Your task to perform on an android device: Open sound settings Image 0: 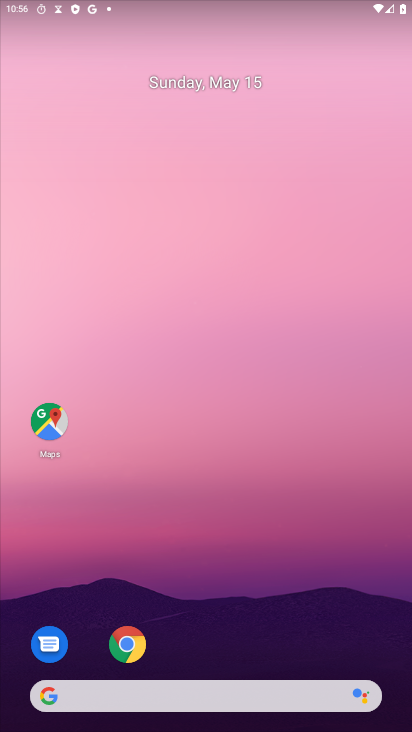
Step 0: drag from (207, 630) to (276, 296)
Your task to perform on an android device: Open sound settings Image 1: 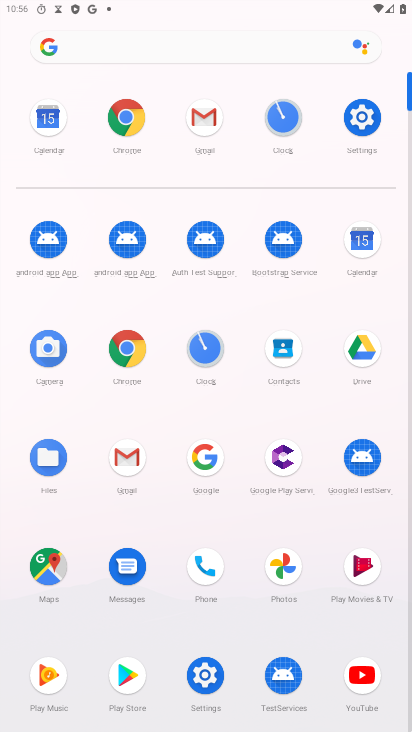
Step 1: click (377, 119)
Your task to perform on an android device: Open sound settings Image 2: 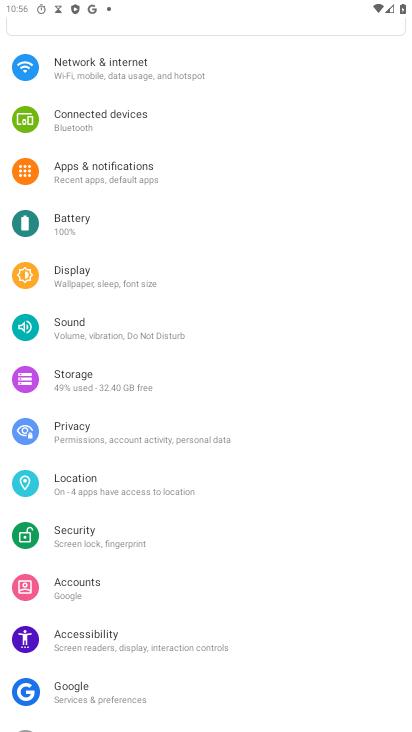
Step 2: click (169, 334)
Your task to perform on an android device: Open sound settings Image 3: 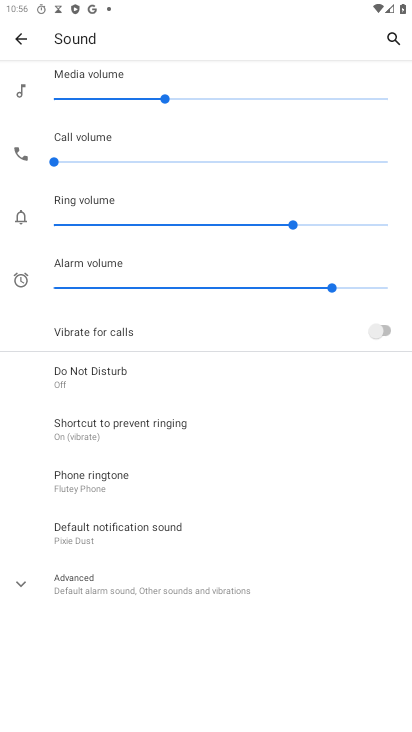
Step 3: click (169, 334)
Your task to perform on an android device: Open sound settings Image 4: 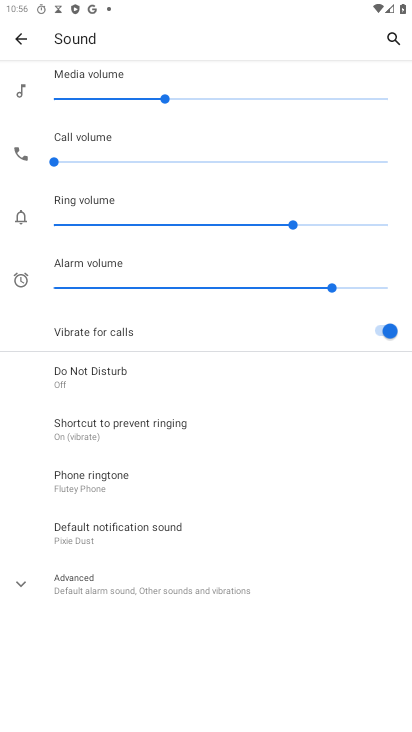
Step 4: task complete